Your task to perform on an android device: delete location history Image 0: 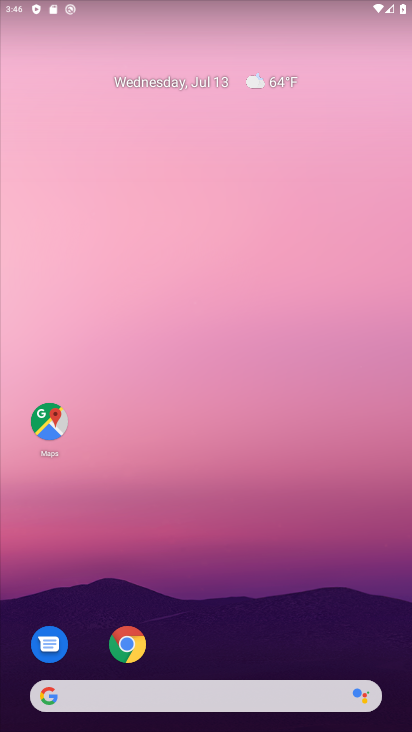
Step 0: drag from (211, 642) to (258, 45)
Your task to perform on an android device: delete location history Image 1: 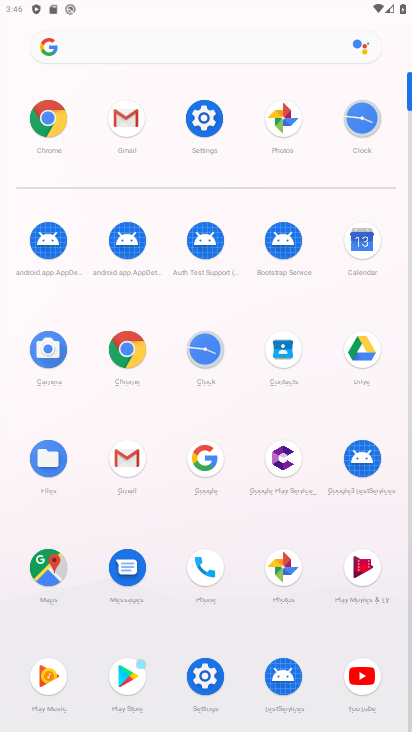
Step 1: click (46, 569)
Your task to perform on an android device: delete location history Image 2: 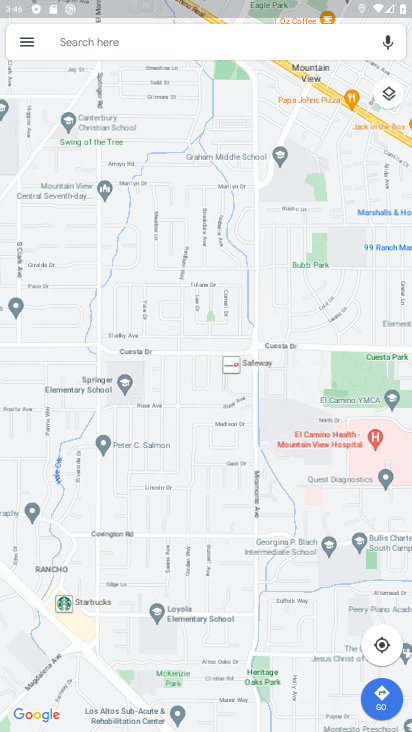
Step 2: click (19, 36)
Your task to perform on an android device: delete location history Image 3: 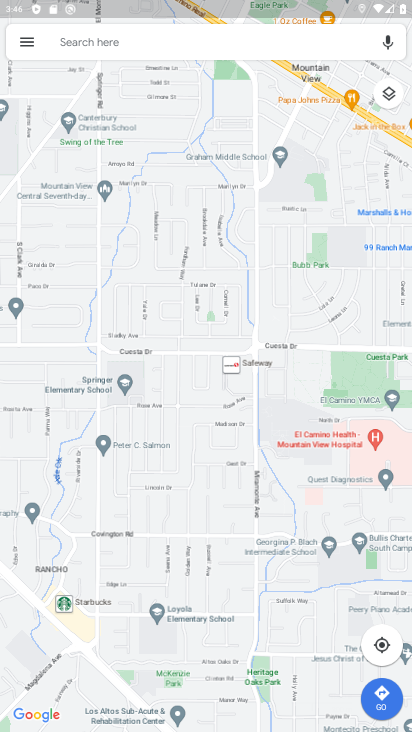
Step 3: click (29, 37)
Your task to perform on an android device: delete location history Image 4: 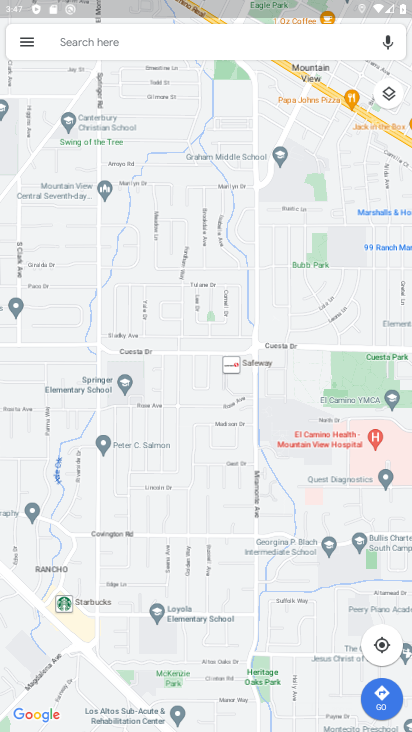
Step 4: click (25, 38)
Your task to perform on an android device: delete location history Image 5: 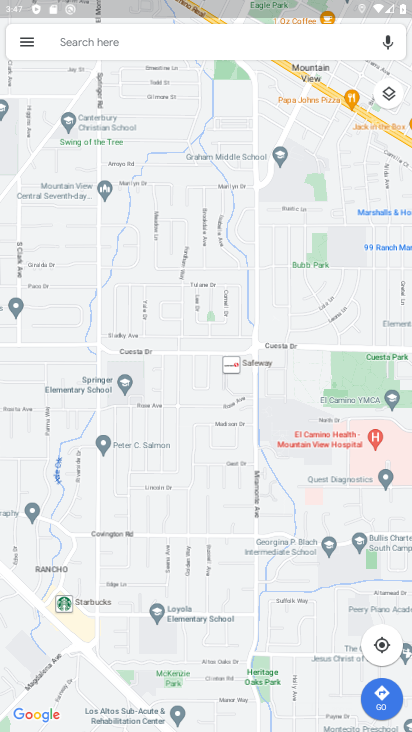
Step 5: click (30, 36)
Your task to perform on an android device: delete location history Image 6: 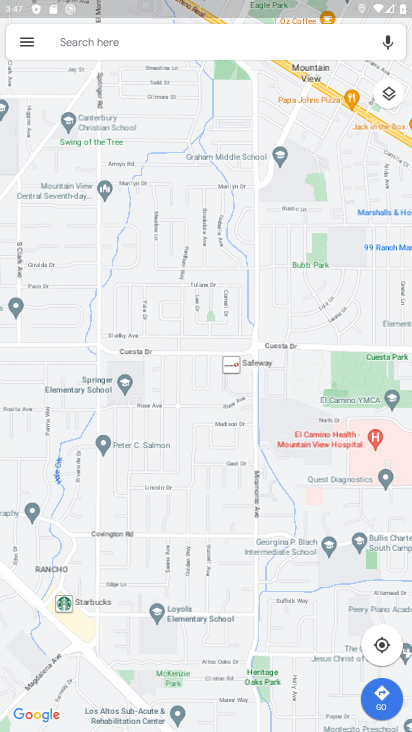
Step 6: drag from (149, 511) to (212, 6)
Your task to perform on an android device: delete location history Image 7: 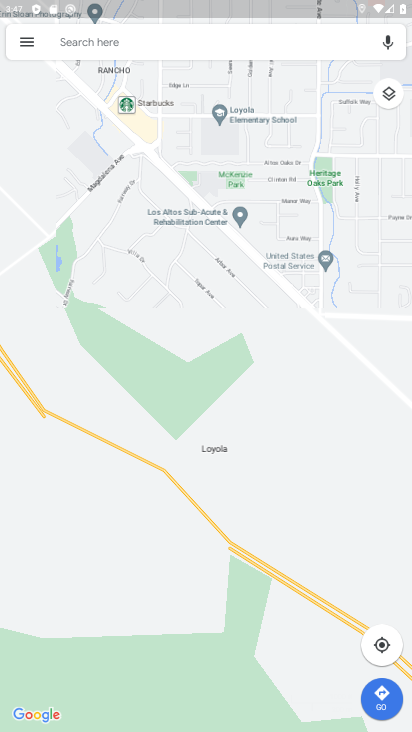
Step 7: drag from (234, 135) to (171, 642)
Your task to perform on an android device: delete location history Image 8: 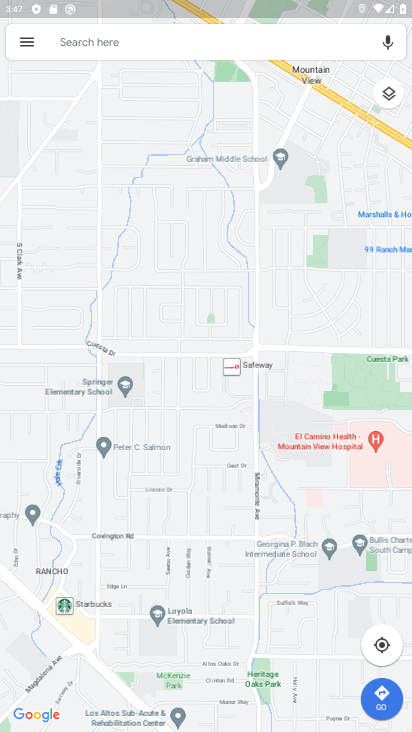
Step 8: click (26, 45)
Your task to perform on an android device: delete location history Image 9: 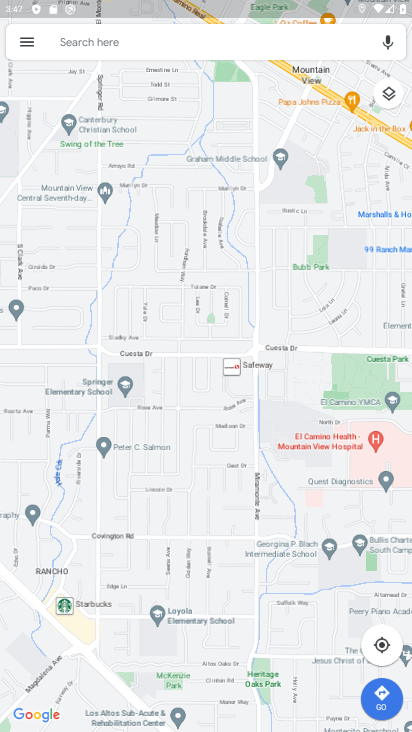
Step 9: click (25, 41)
Your task to perform on an android device: delete location history Image 10: 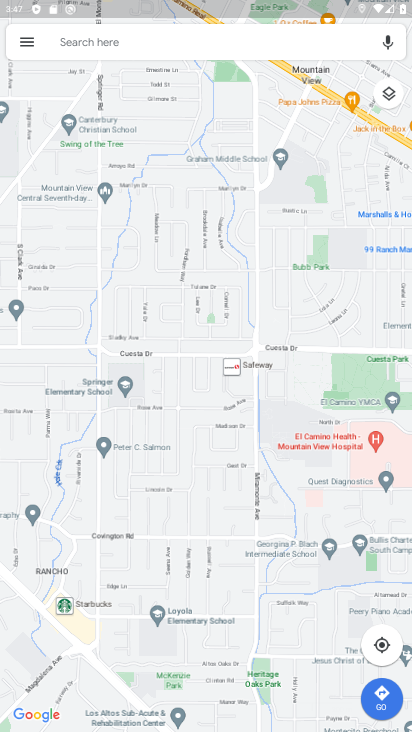
Step 10: click (25, 41)
Your task to perform on an android device: delete location history Image 11: 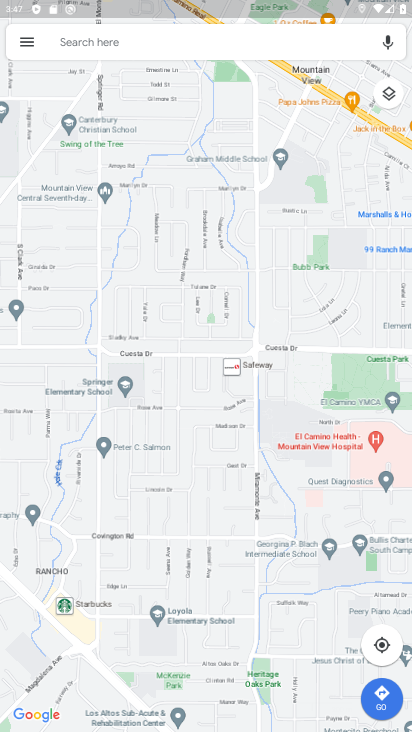
Step 11: task complete